Your task to perform on an android device: allow notifications from all sites in the chrome app Image 0: 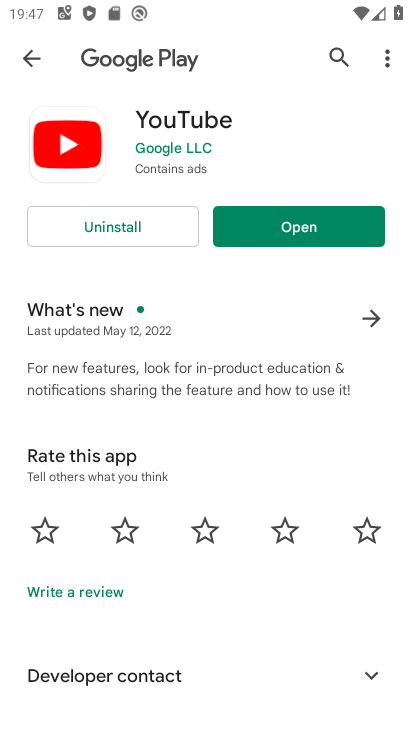
Step 0: press back button
Your task to perform on an android device: allow notifications from all sites in the chrome app Image 1: 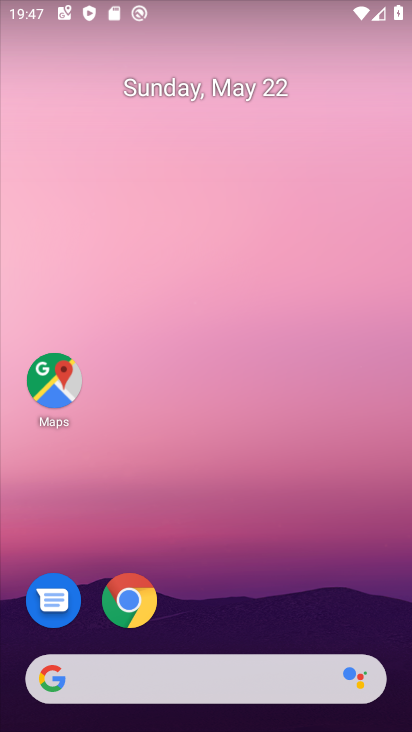
Step 1: drag from (235, 439) to (209, 1)
Your task to perform on an android device: allow notifications from all sites in the chrome app Image 2: 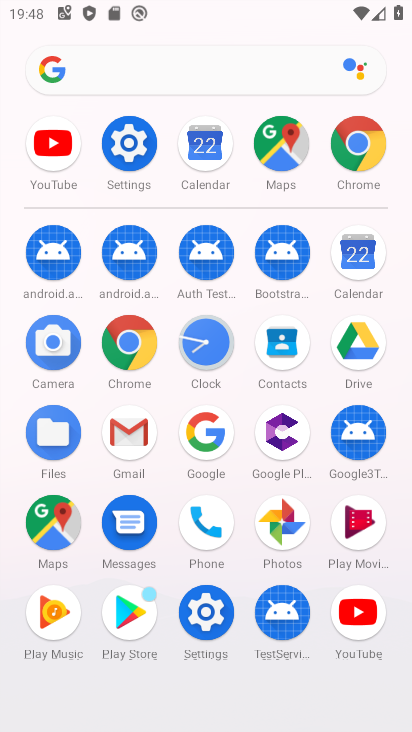
Step 2: click (360, 138)
Your task to perform on an android device: allow notifications from all sites in the chrome app Image 3: 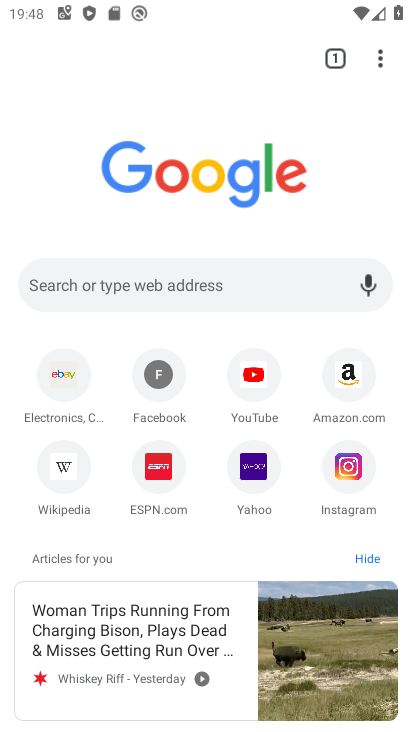
Step 3: drag from (377, 53) to (198, 492)
Your task to perform on an android device: allow notifications from all sites in the chrome app Image 4: 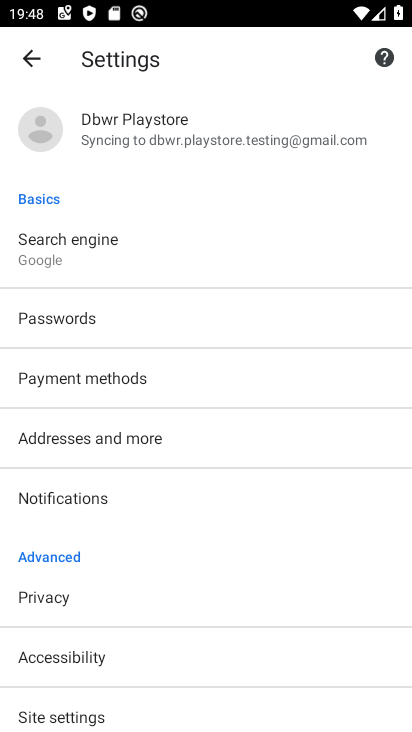
Step 4: drag from (205, 541) to (246, 175)
Your task to perform on an android device: allow notifications from all sites in the chrome app Image 5: 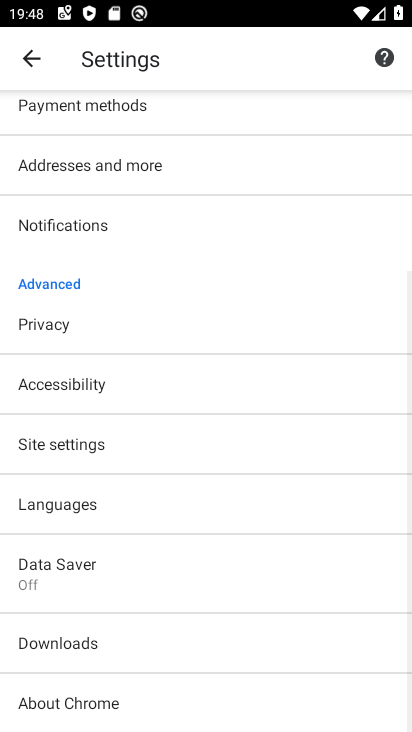
Step 5: click (124, 450)
Your task to perform on an android device: allow notifications from all sites in the chrome app Image 6: 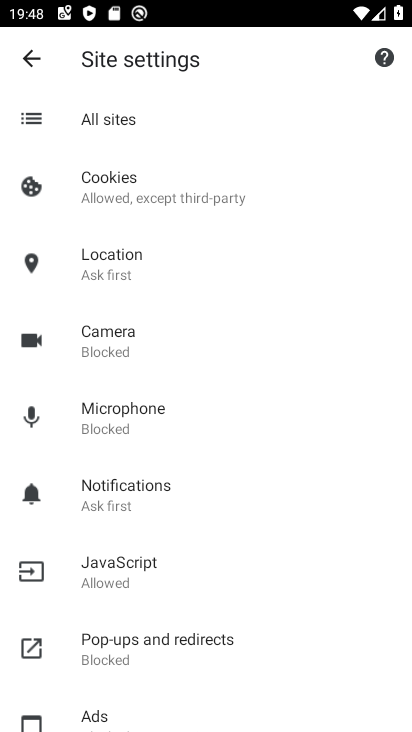
Step 6: click (153, 479)
Your task to perform on an android device: allow notifications from all sites in the chrome app Image 7: 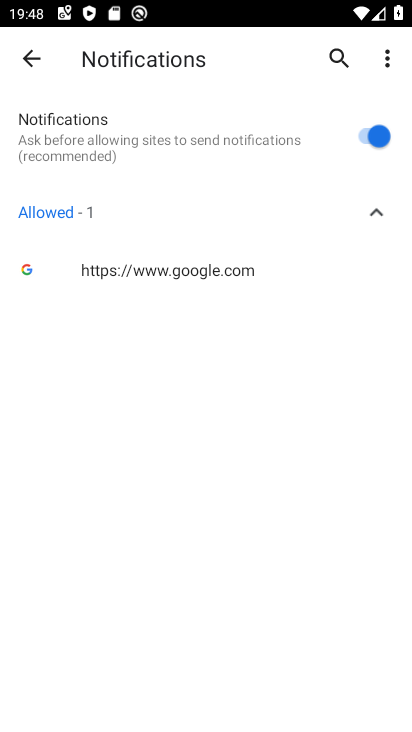
Step 7: task complete